Your task to perform on an android device: Clear all items from cart on costco. Search for "logitech g pro" on costco, select the first entry, and add it to the cart. Image 0: 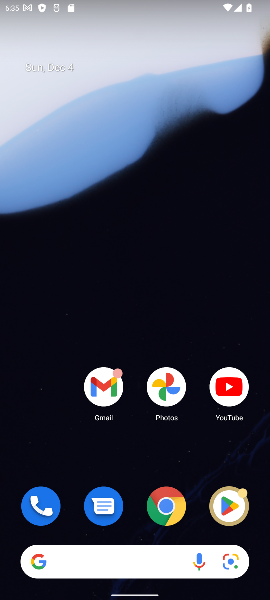
Step 0: click (172, 504)
Your task to perform on an android device: Clear all items from cart on costco. Search for "logitech g pro" on costco, select the first entry, and add it to the cart. Image 1: 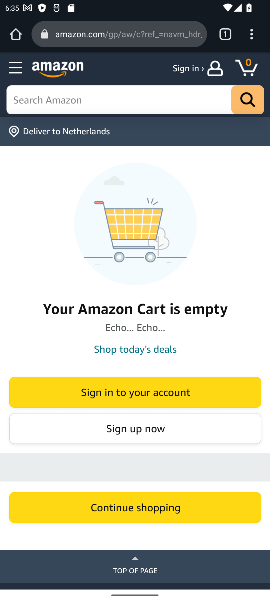
Step 1: click (134, 40)
Your task to perform on an android device: Clear all items from cart on costco. Search for "logitech g pro" on costco, select the first entry, and add it to the cart. Image 2: 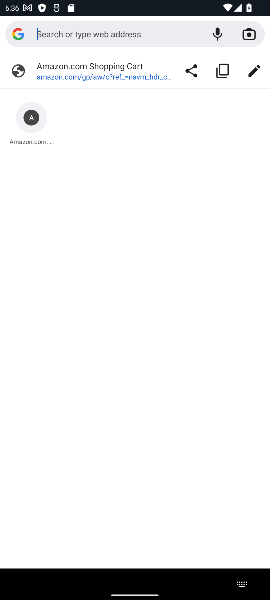
Step 2: type "costco"
Your task to perform on an android device: Clear all items from cart on costco. Search for "logitech g pro" on costco, select the first entry, and add it to the cart. Image 3: 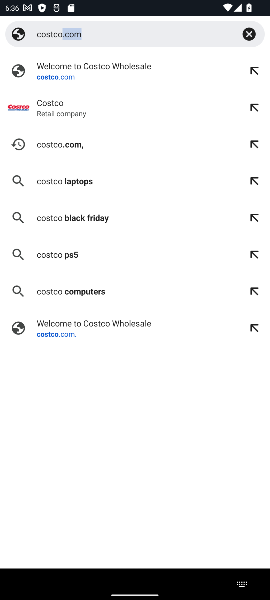
Step 3: click (83, 113)
Your task to perform on an android device: Clear all items from cart on costco. Search for "logitech g pro" on costco, select the first entry, and add it to the cart. Image 4: 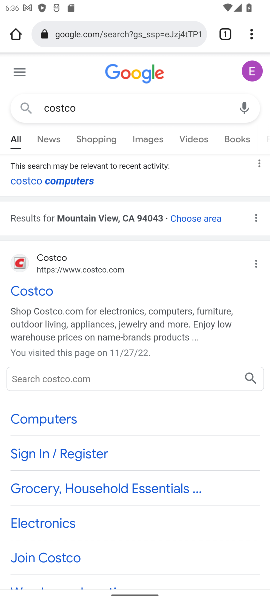
Step 4: click (20, 297)
Your task to perform on an android device: Clear all items from cart on costco. Search for "logitech g pro" on costco, select the first entry, and add it to the cart. Image 5: 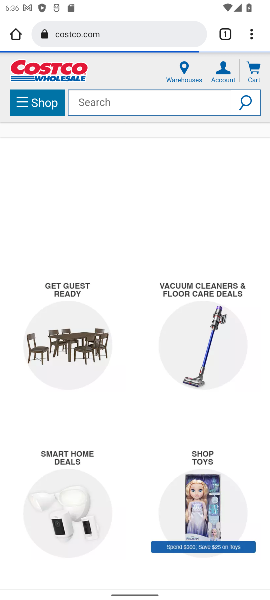
Step 5: click (174, 97)
Your task to perform on an android device: Clear all items from cart on costco. Search for "logitech g pro" on costco, select the first entry, and add it to the cart. Image 6: 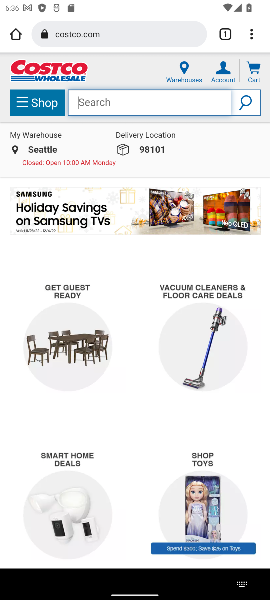
Step 6: type "logitech g pro"
Your task to perform on an android device: Clear all items from cart on costco. Search for "logitech g pro" on costco, select the first entry, and add it to the cart. Image 7: 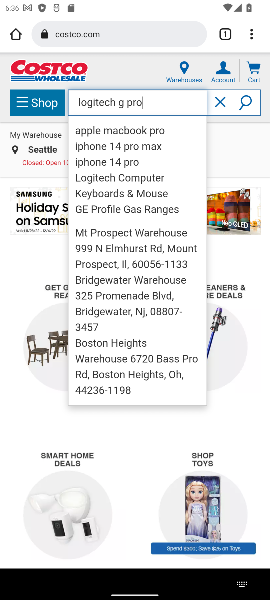
Step 7: click (253, 100)
Your task to perform on an android device: Clear all items from cart on costco. Search for "logitech g pro" on costco, select the first entry, and add it to the cart. Image 8: 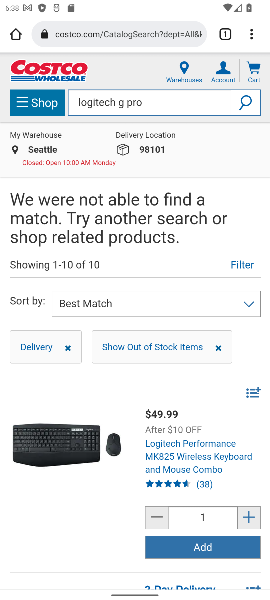
Step 8: task complete